Your task to perform on an android device: open a new tab in the chrome app Image 0: 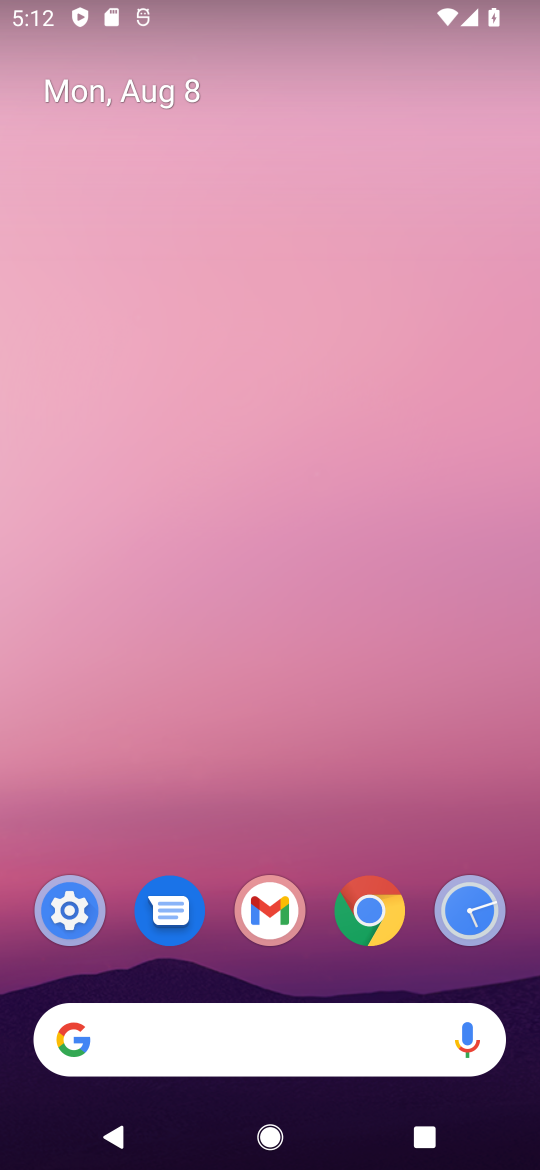
Step 0: click (366, 911)
Your task to perform on an android device: open a new tab in the chrome app Image 1: 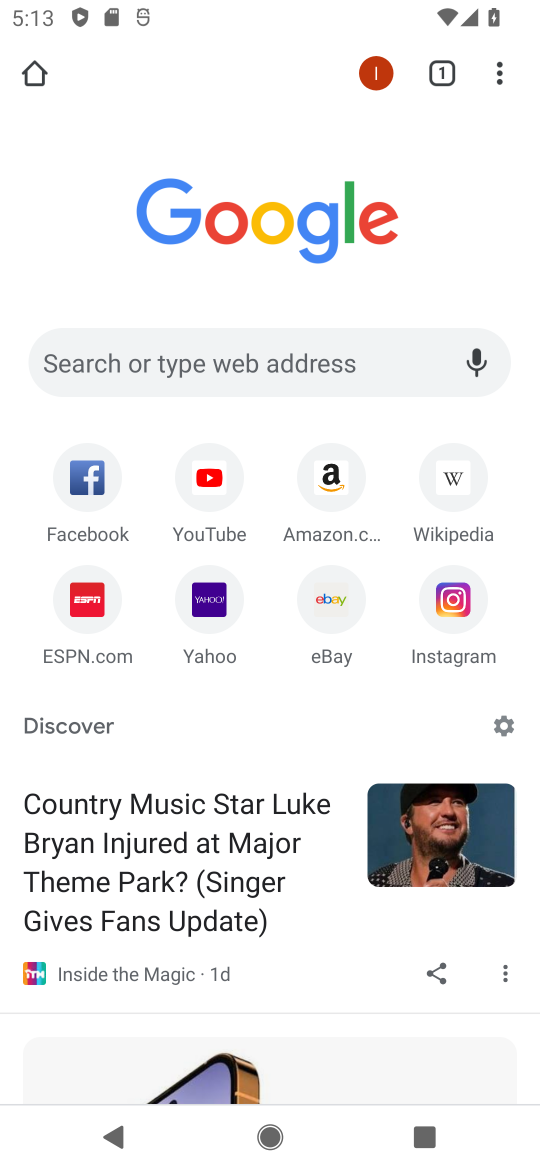
Step 1: click (499, 75)
Your task to perform on an android device: open a new tab in the chrome app Image 2: 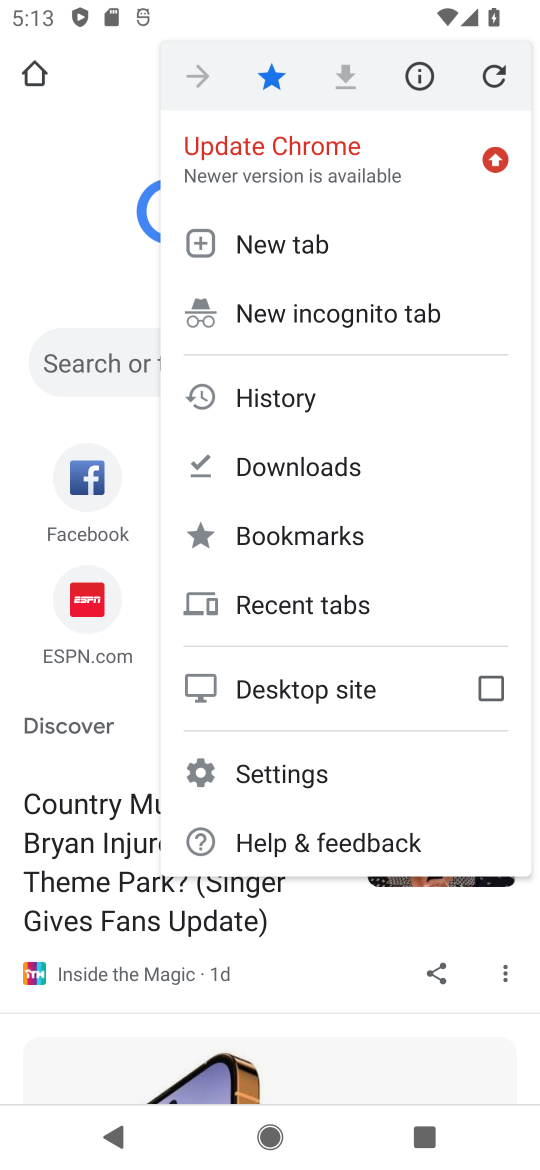
Step 2: click (314, 245)
Your task to perform on an android device: open a new tab in the chrome app Image 3: 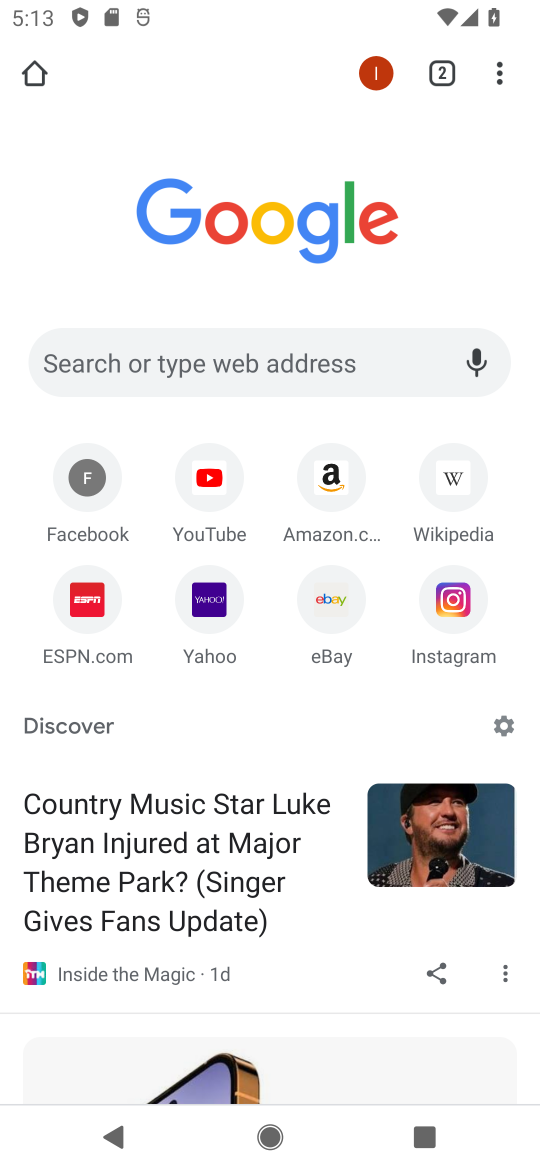
Step 3: task complete